Your task to perform on an android device: check storage Image 0: 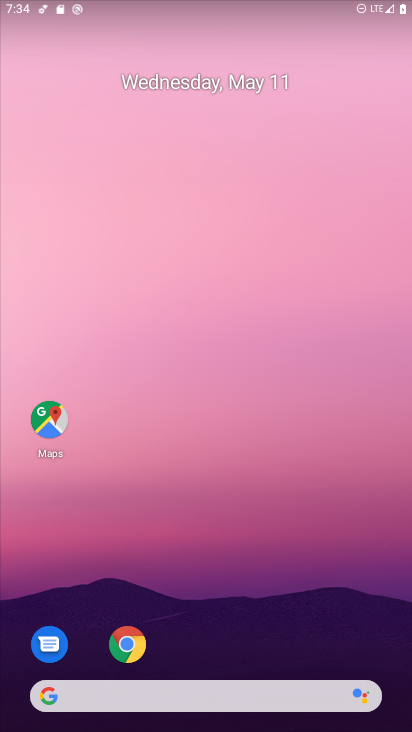
Step 0: drag from (255, 574) to (174, 133)
Your task to perform on an android device: check storage Image 1: 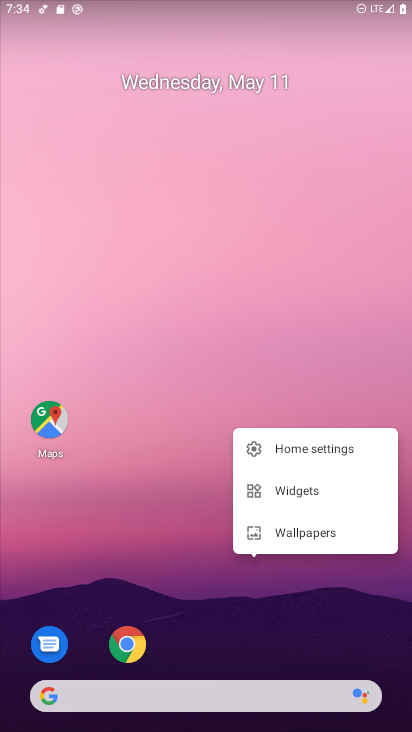
Step 1: click (129, 444)
Your task to perform on an android device: check storage Image 2: 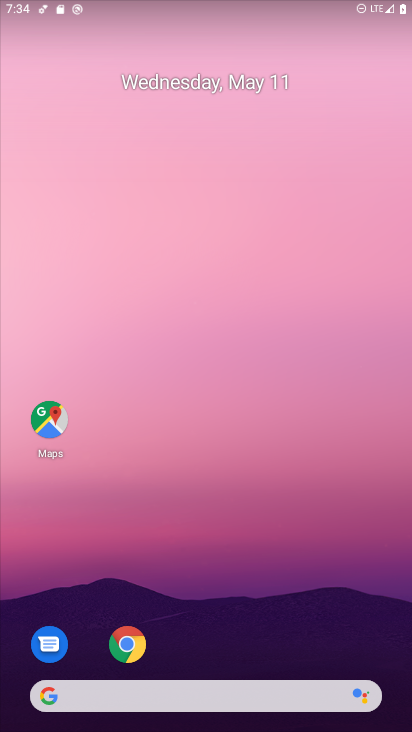
Step 2: drag from (200, 583) to (130, 32)
Your task to perform on an android device: check storage Image 3: 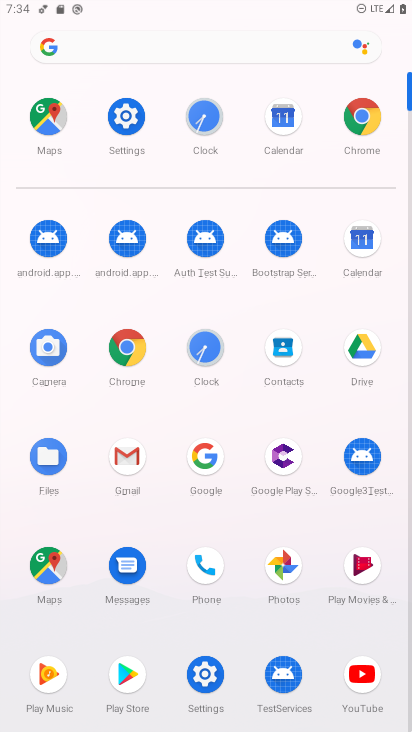
Step 3: click (129, 118)
Your task to perform on an android device: check storage Image 4: 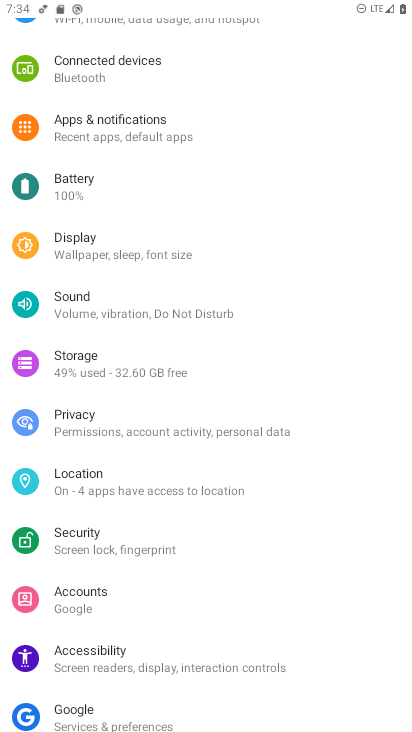
Step 4: click (68, 359)
Your task to perform on an android device: check storage Image 5: 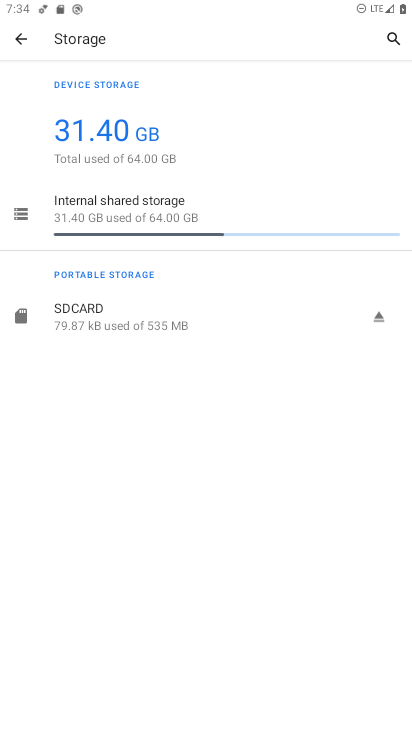
Step 5: task complete